Your task to perform on an android device: turn off sleep mode Image 0: 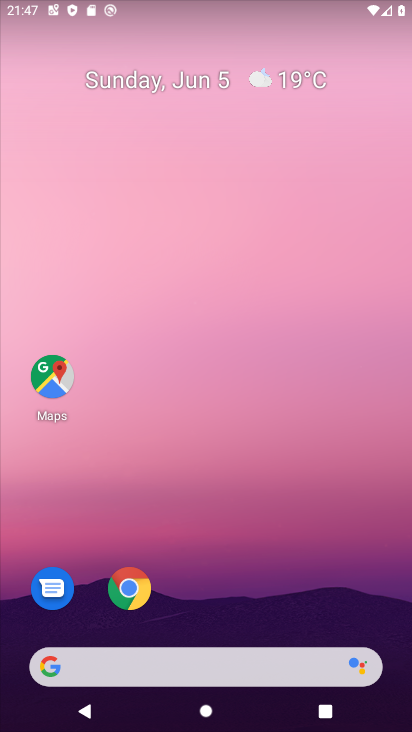
Step 0: drag from (369, 608) to (344, 199)
Your task to perform on an android device: turn off sleep mode Image 1: 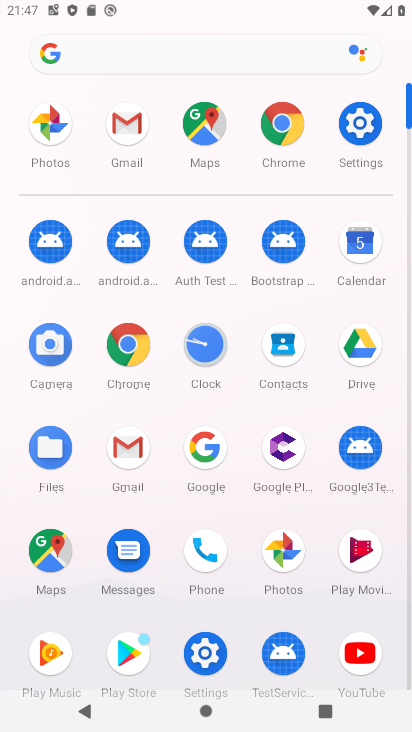
Step 1: click (365, 139)
Your task to perform on an android device: turn off sleep mode Image 2: 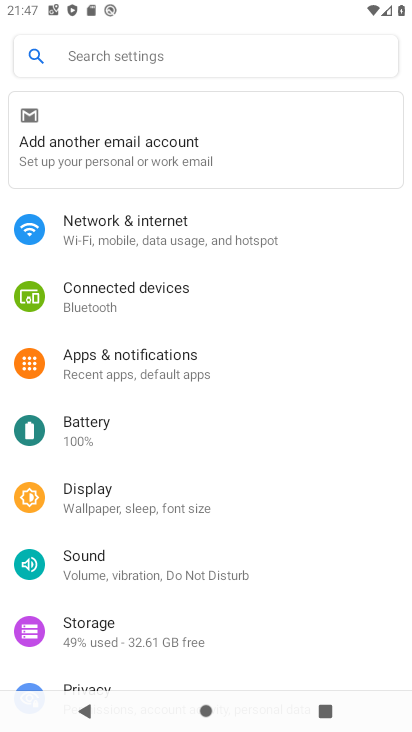
Step 2: drag from (338, 391) to (344, 319)
Your task to perform on an android device: turn off sleep mode Image 3: 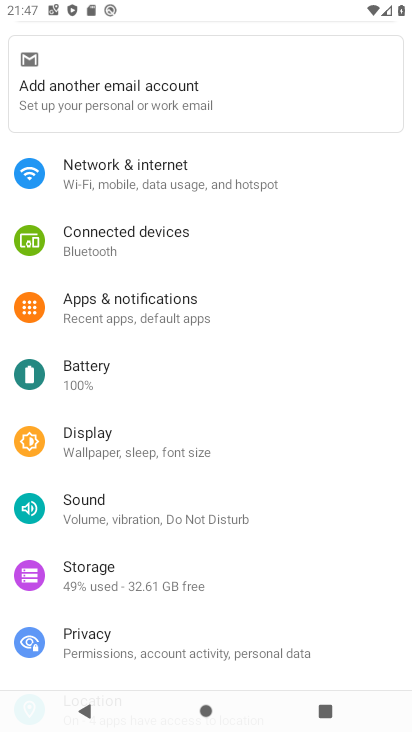
Step 3: drag from (353, 434) to (358, 356)
Your task to perform on an android device: turn off sleep mode Image 4: 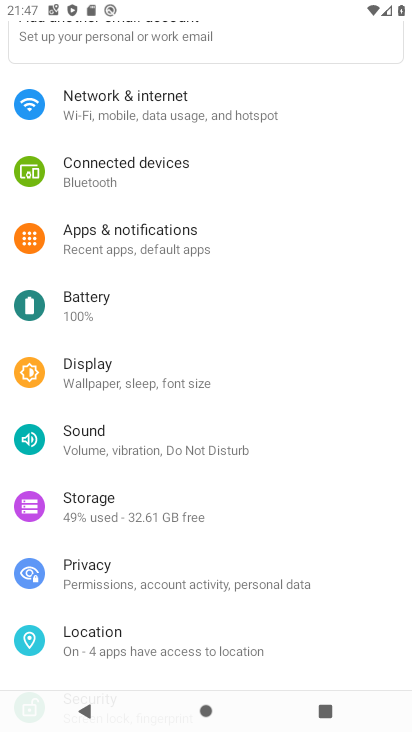
Step 4: drag from (347, 450) to (346, 389)
Your task to perform on an android device: turn off sleep mode Image 5: 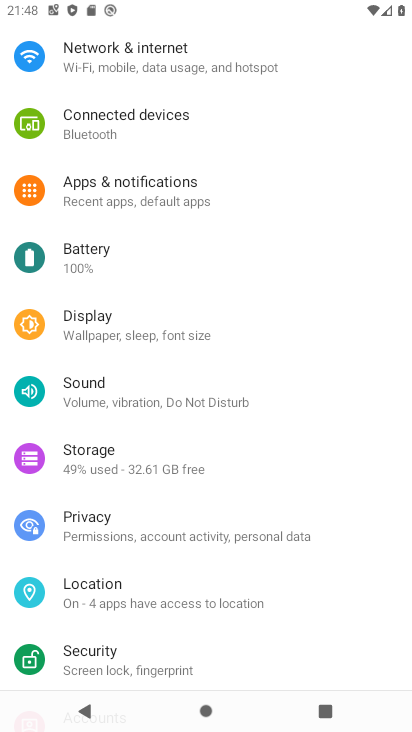
Step 5: drag from (341, 457) to (354, 349)
Your task to perform on an android device: turn off sleep mode Image 6: 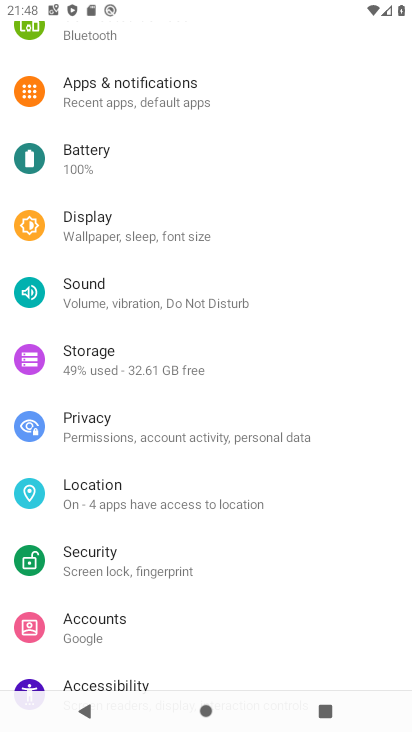
Step 6: drag from (361, 477) to (356, 380)
Your task to perform on an android device: turn off sleep mode Image 7: 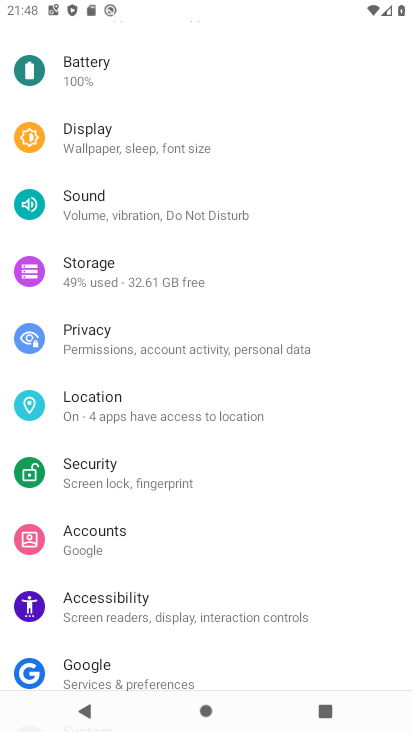
Step 7: drag from (338, 476) to (338, 399)
Your task to perform on an android device: turn off sleep mode Image 8: 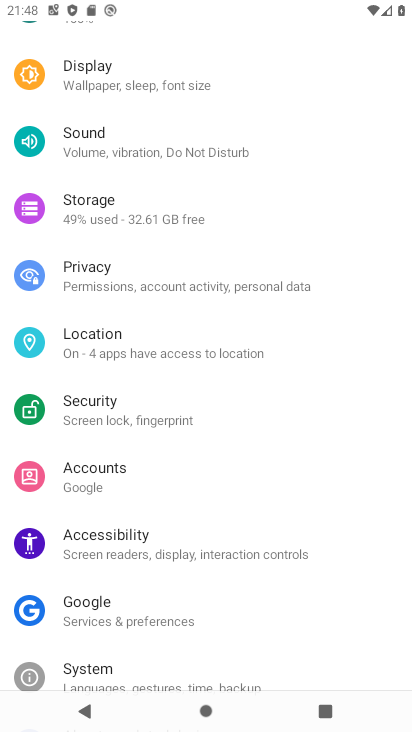
Step 8: drag from (330, 541) to (331, 430)
Your task to perform on an android device: turn off sleep mode Image 9: 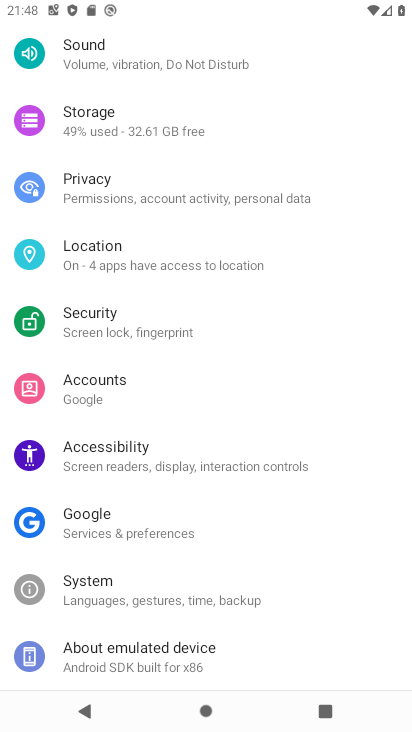
Step 9: drag from (345, 538) to (352, 415)
Your task to perform on an android device: turn off sleep mode Image 10: 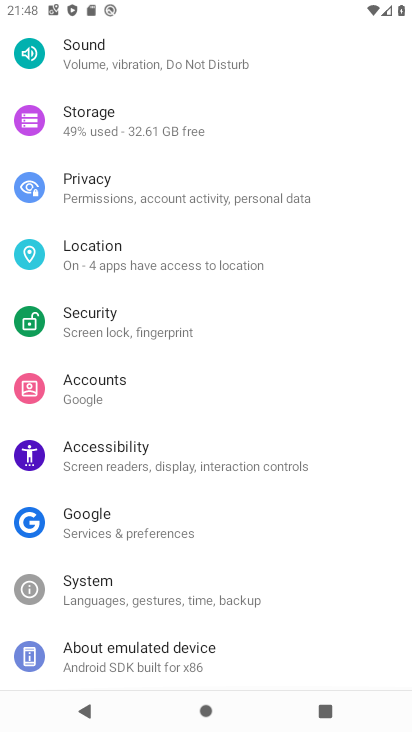
Step 10: drag from (357, 278) to (356, 391)
Your task to perform on an android device: turn off sleep mode Image 11: 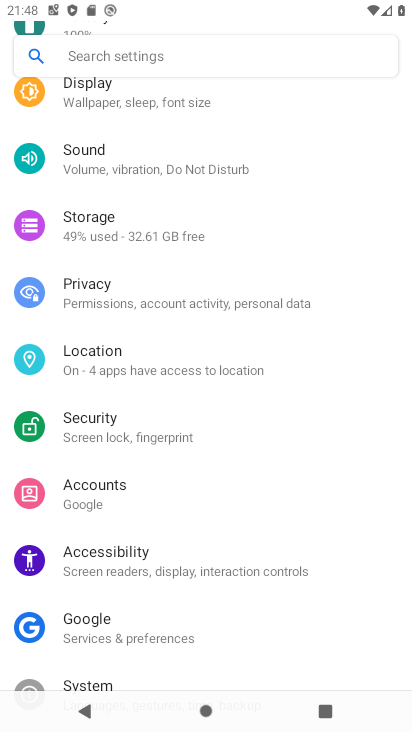
Step 11: drag from (356, 246) to (356, 348)
Your task to perform on an android device: turn off sleep mode Image 12: 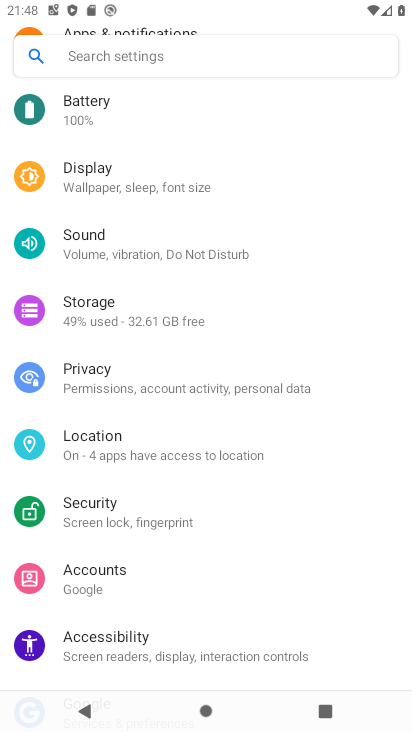
Step 12: drag from (345, 222) to (342, 340)
Your task to perform on an android device: turn off sleep mode Image 13: 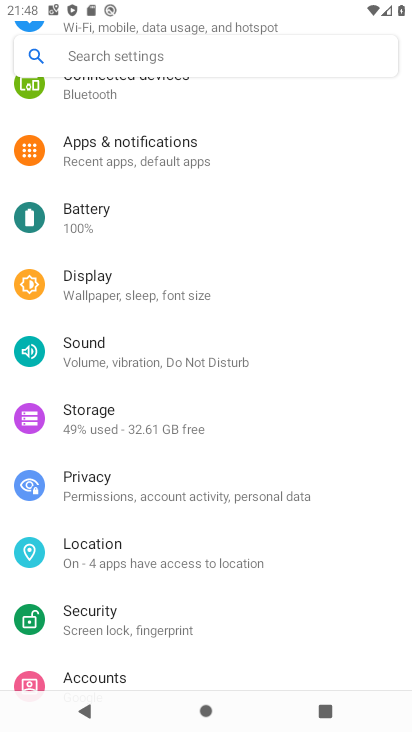
Step 13: drag from (326, 190) to (355, 372)
Your task to perform on an android device: turn off sleep mode Image 14: 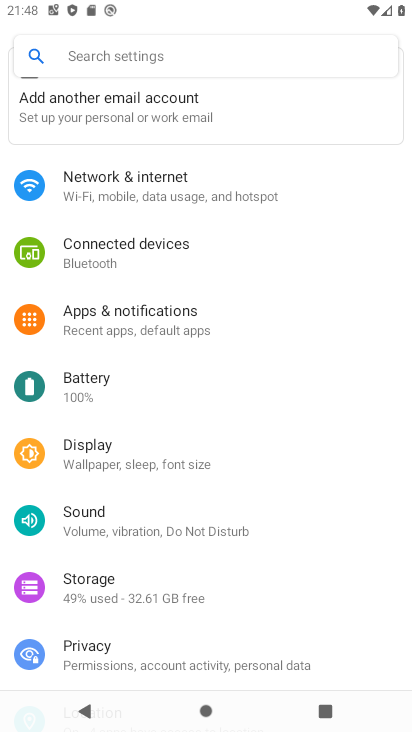
Step 14: click (195, 476)
Your task to perform on an android device: turn off sleep mode Image 15: 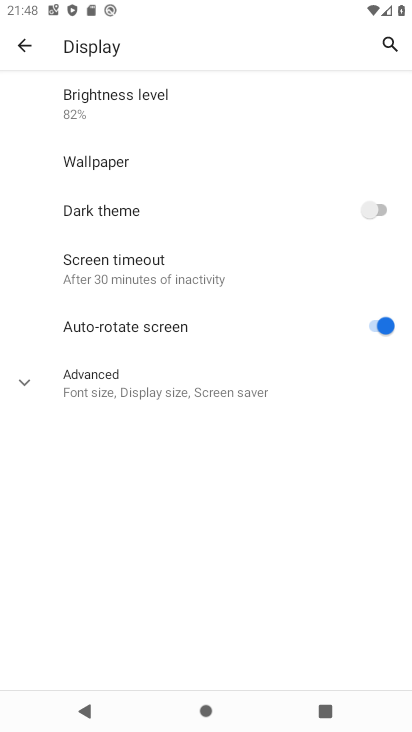
Step 15: task complete